Your task to perform on an android device: Open CNN.com Image 0: 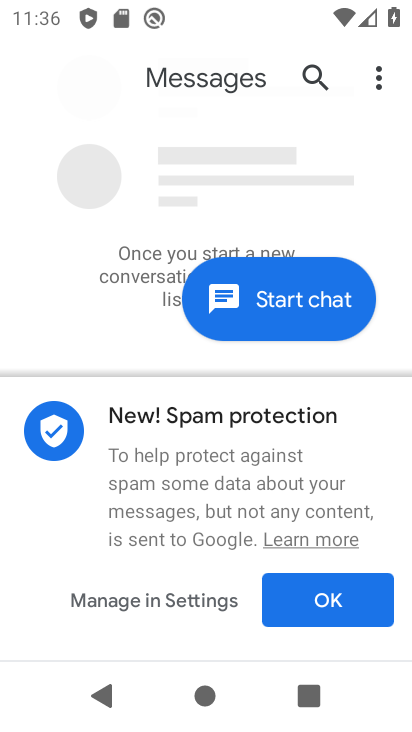
Step 0: press home button
Your task to perform on an android device: Open CNN.com Image 1: 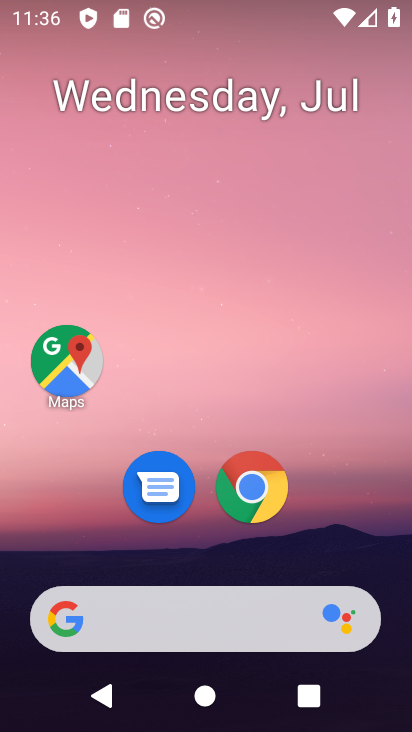
Step 1: drag from (205, 525) to (302, 18)
Your task to perform on an android device: Open CNN.com Image 2: 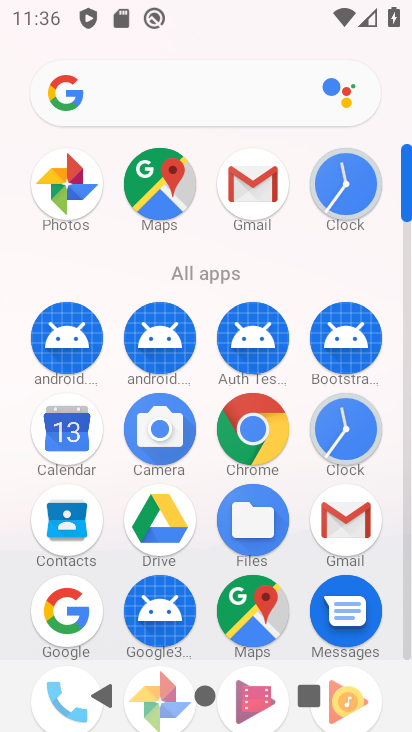
Step 2: click (264, 435)
Your task to perform on an android device: Open CNN.com Image 3: 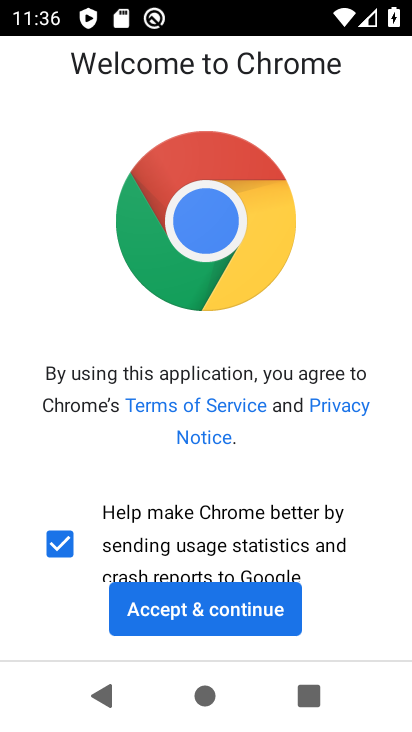
Step 3: click (210, 628)
Your task to perform on an android device: Open CNN.com Image 4: 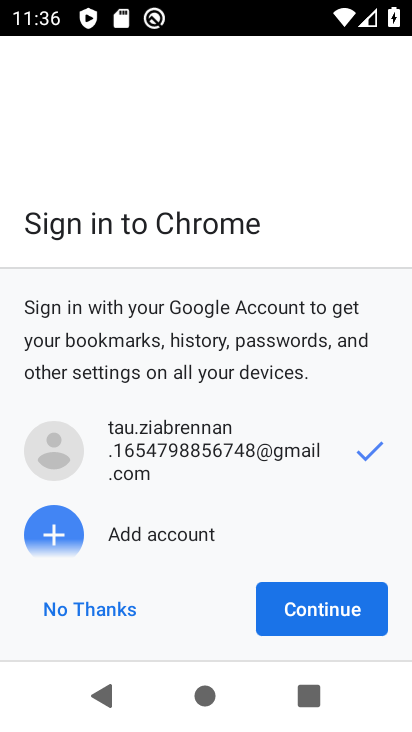
Step 4: click (325, 606)
Your task to perform on an android device: Open CNN.com Image 5: 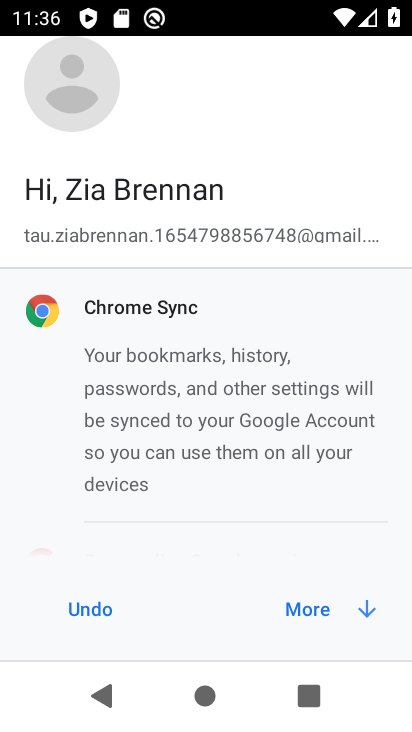
Step 5: click (327, 605)
Your task to perform on an android device: Open CNN.com Image 6: 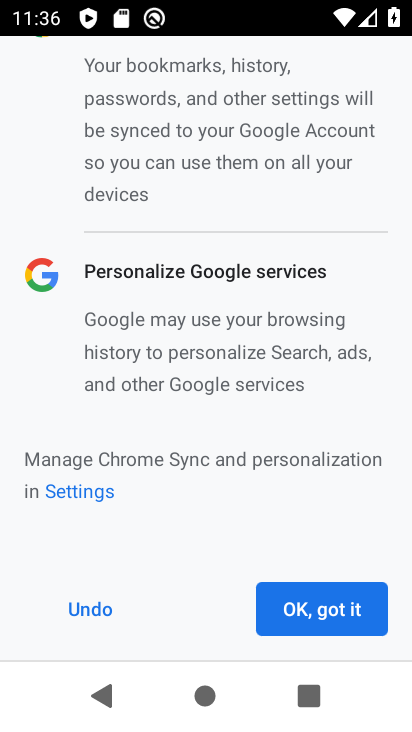
Step 6: click (327, 605)
Your task to perform on an android device: Open CNN.com Image 7: 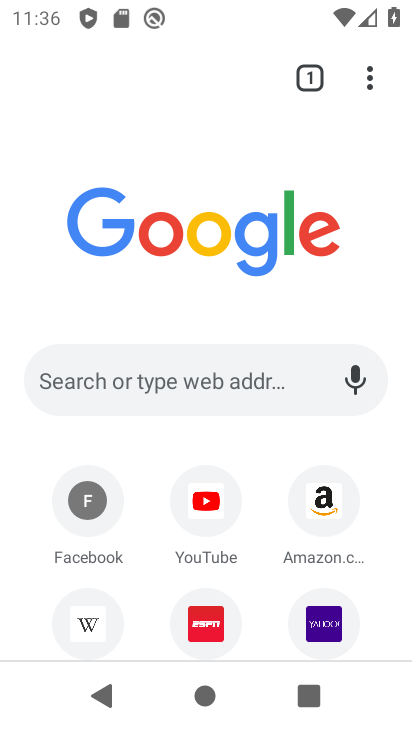
Step 7: drag from (186, 452) to (204, 324)
Your task to perform on an android device: Open CNN.com Image 8: 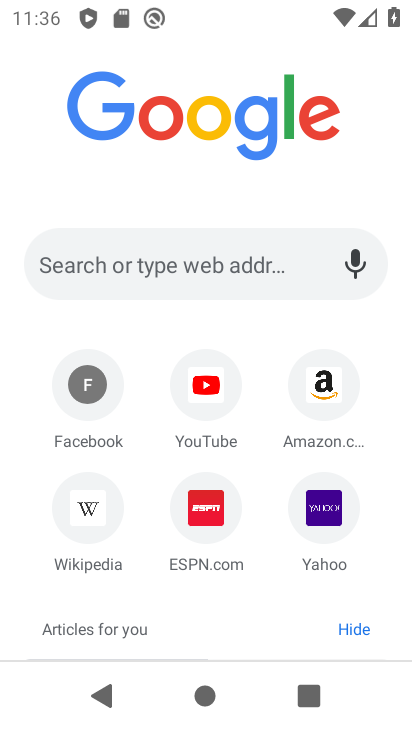
Step 8: click (171, 288)
Your task to perform on an android device: Open CNN.com Image 9: 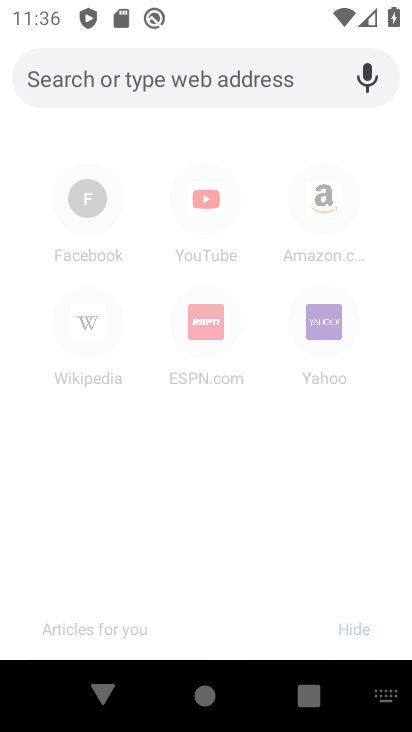
Step 9: type "cnn"
Your task to perform on an android device: Open CNN.com Image 10: 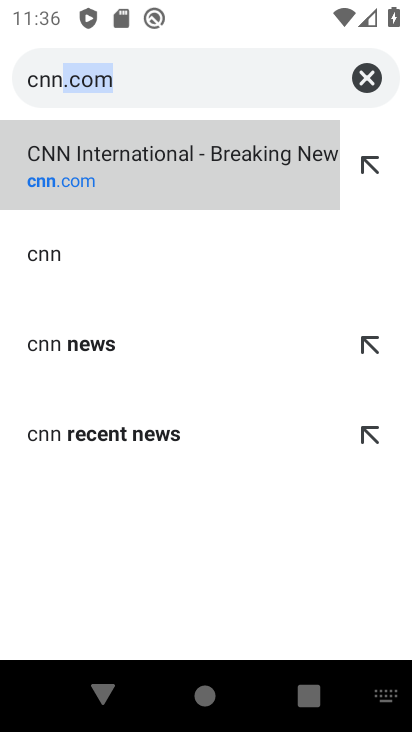
Step 10: click (175, 171)
Your task to perform on an android device: Open CNN.com Image 11: 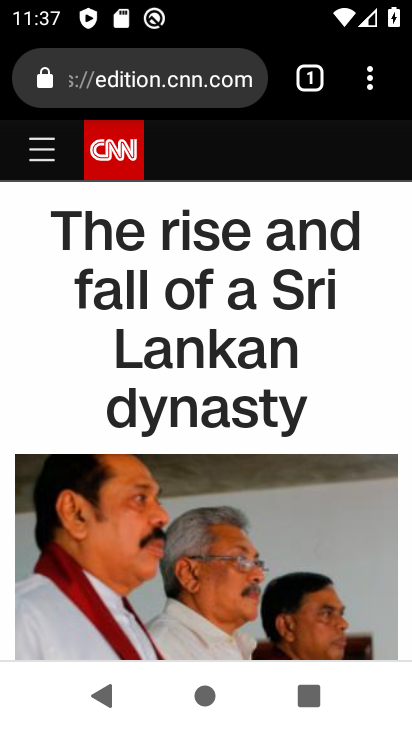
Step 11: task complete